Your task to perform on an android device: Go to battery settings Image 0: 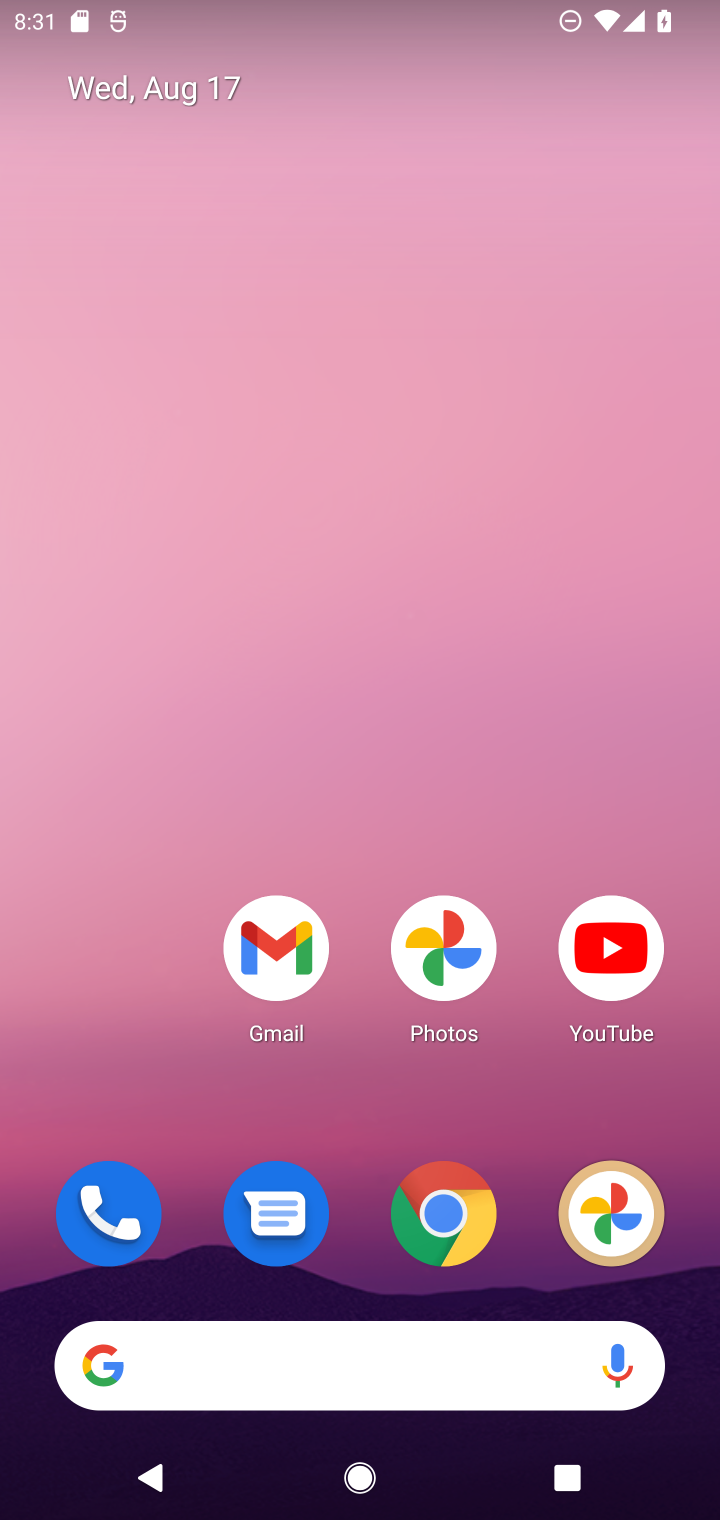
Step 0: click (363, 1259)
Your task to perform on an android device: Go to battery settings Image 1: 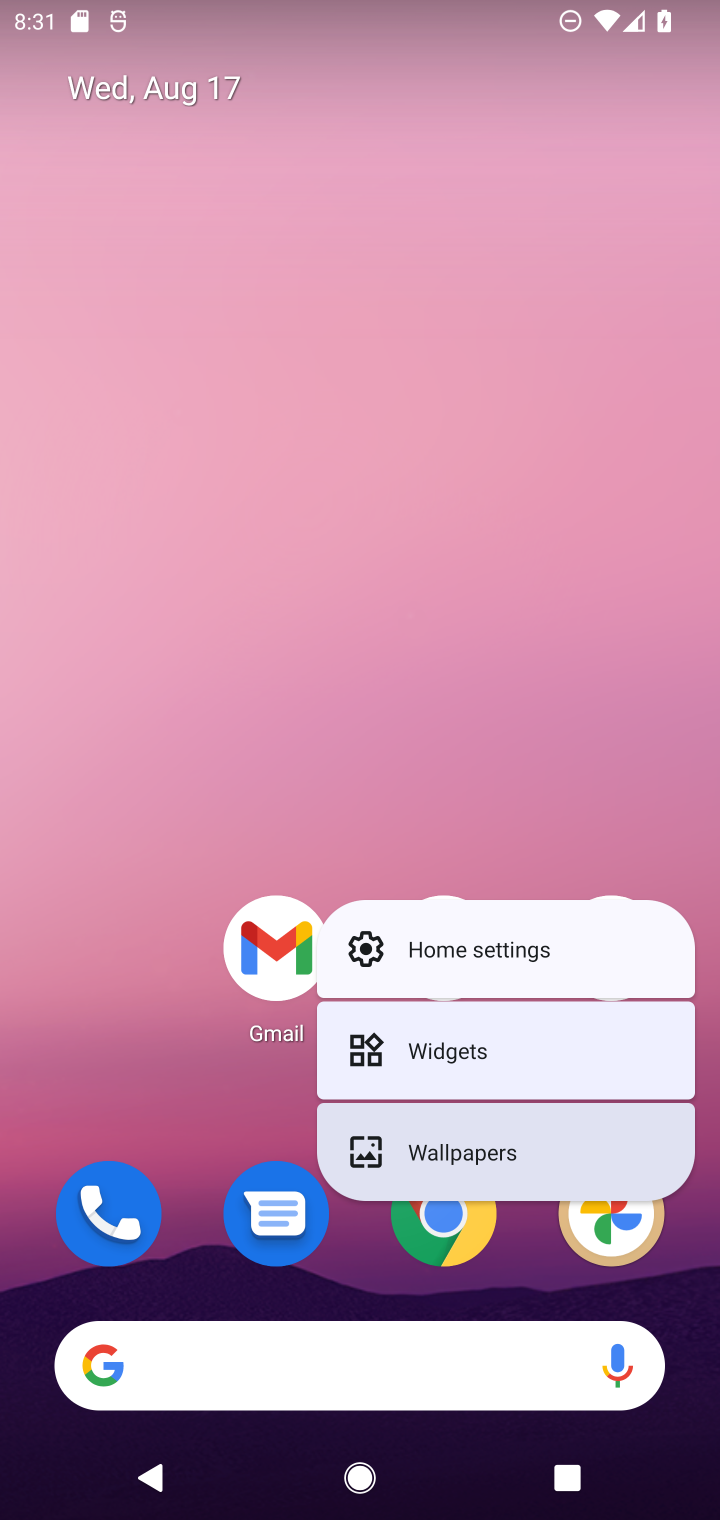
Step 1: click (363, 1259)
Your task to perform on an android device: Go to battery settings Image 2: 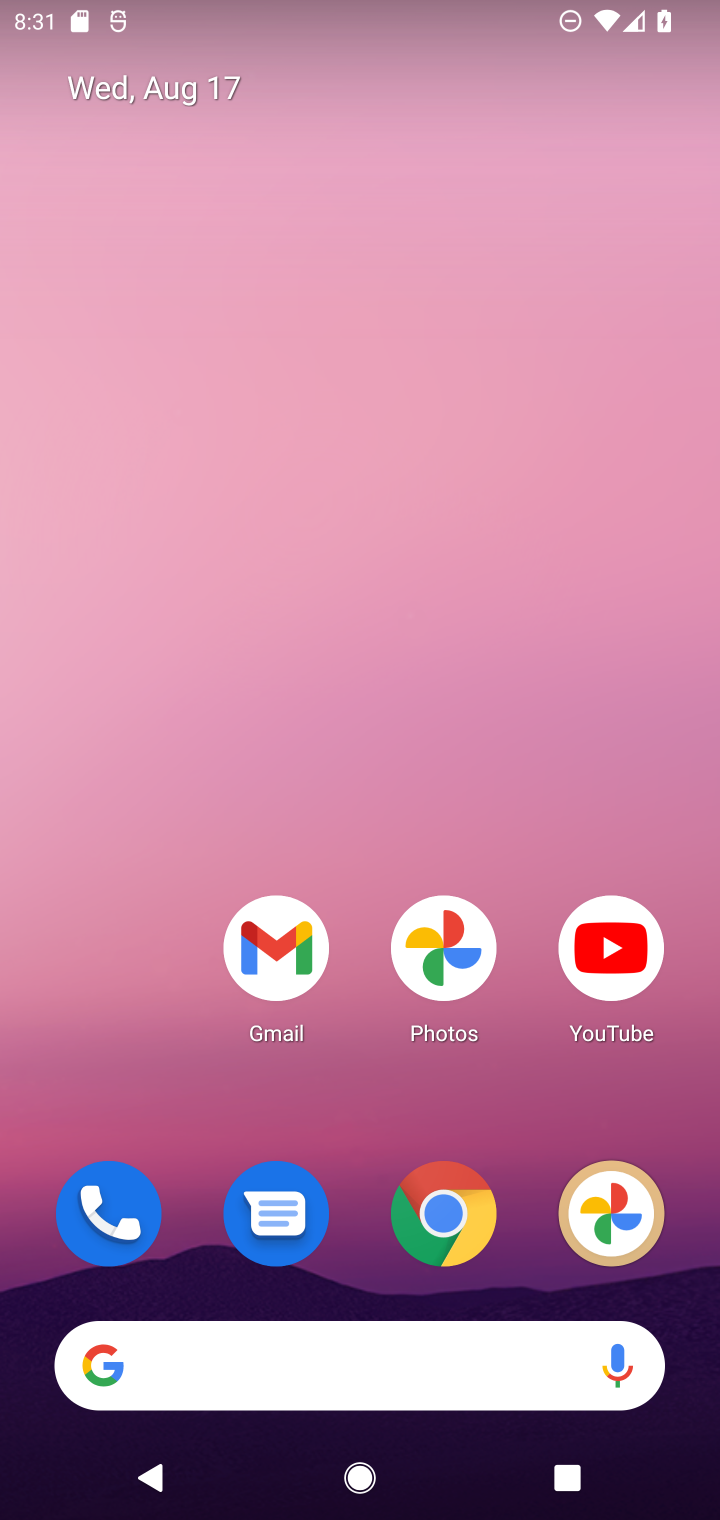
Step 2: drag from (363, 1259) to (350, 773)
Your task to perform on an android device: Go to battery settings Image 3: 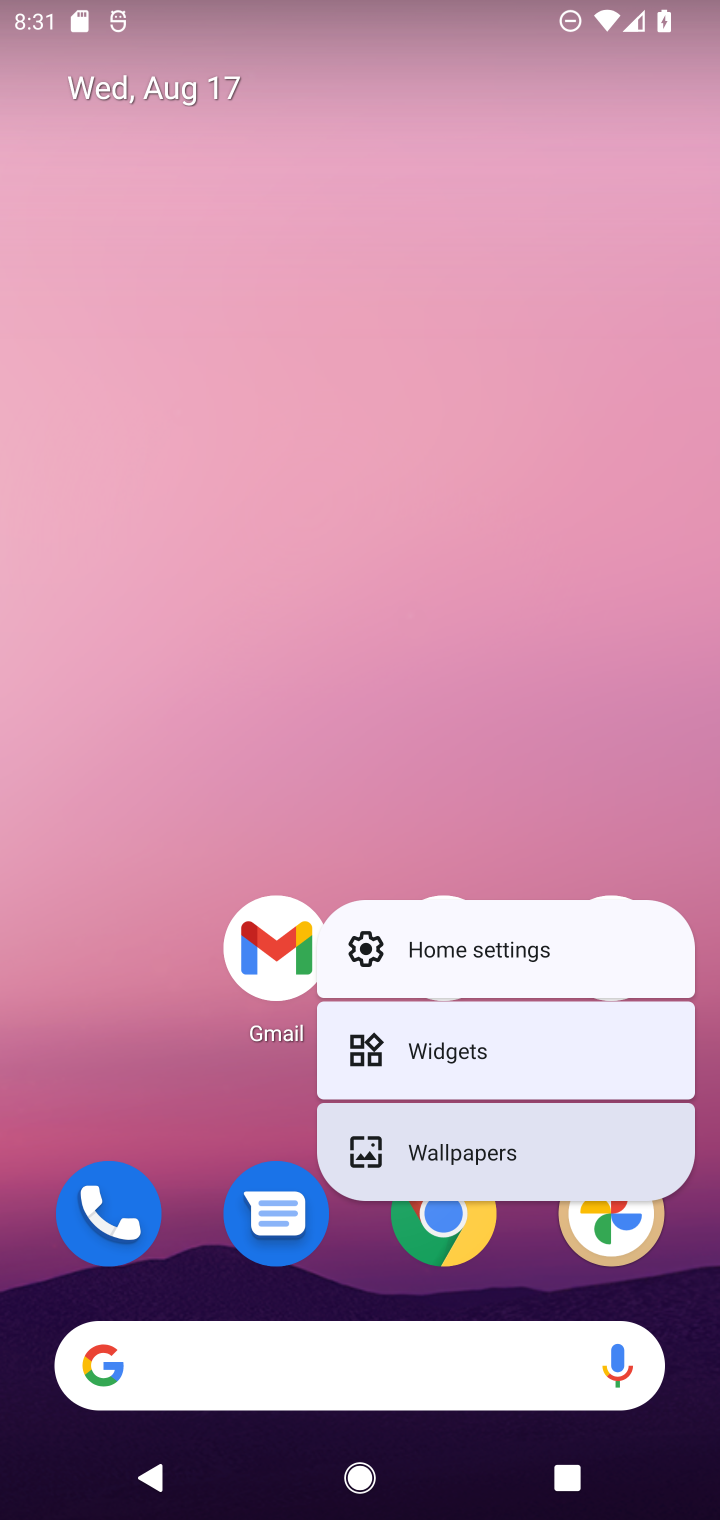
Step 3: drag from (344, 1300) to (251, 318)
Your task to perform on an android device: Go to battery settings Image 4: 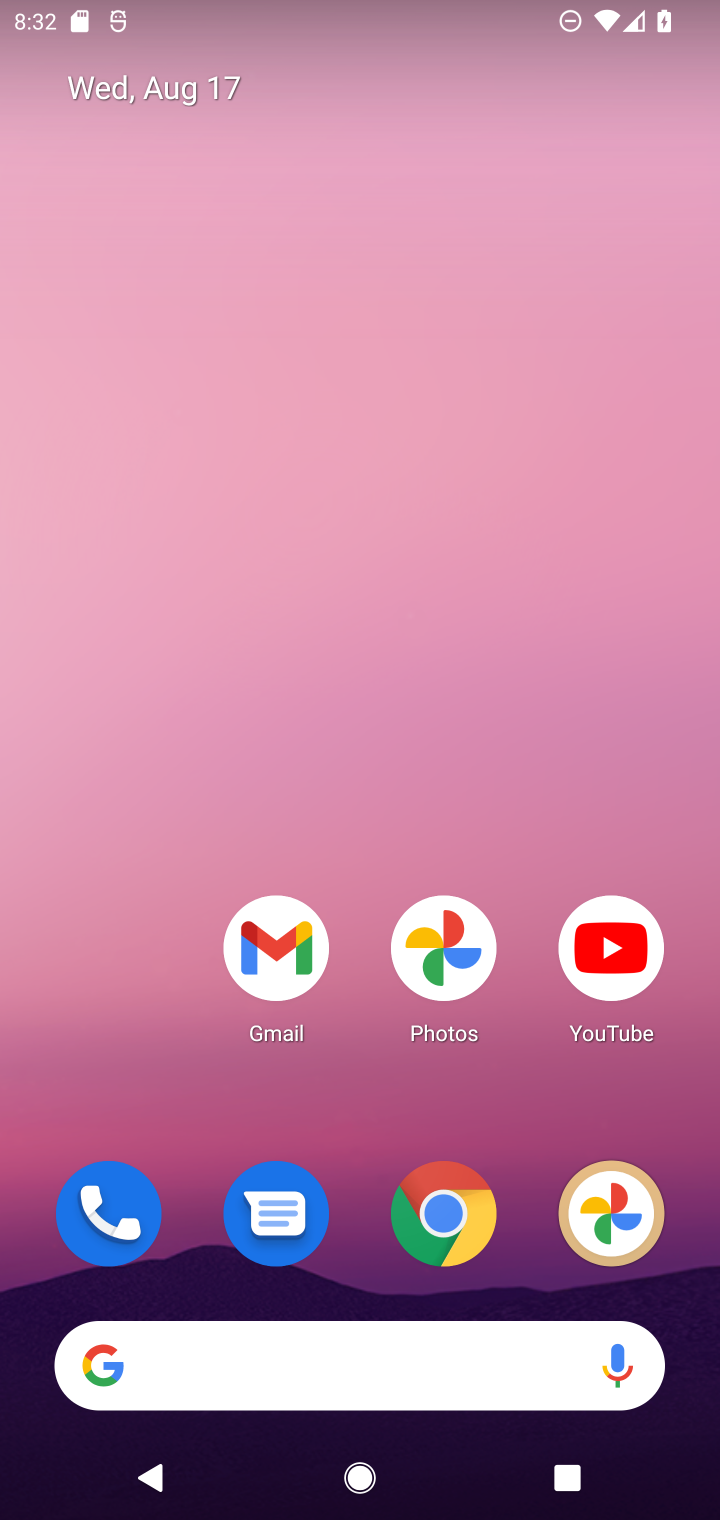
Step 4: drag from (387, 1274) to (202, 188)
Your task to perform on an android device: Go to battery settings Image 5: 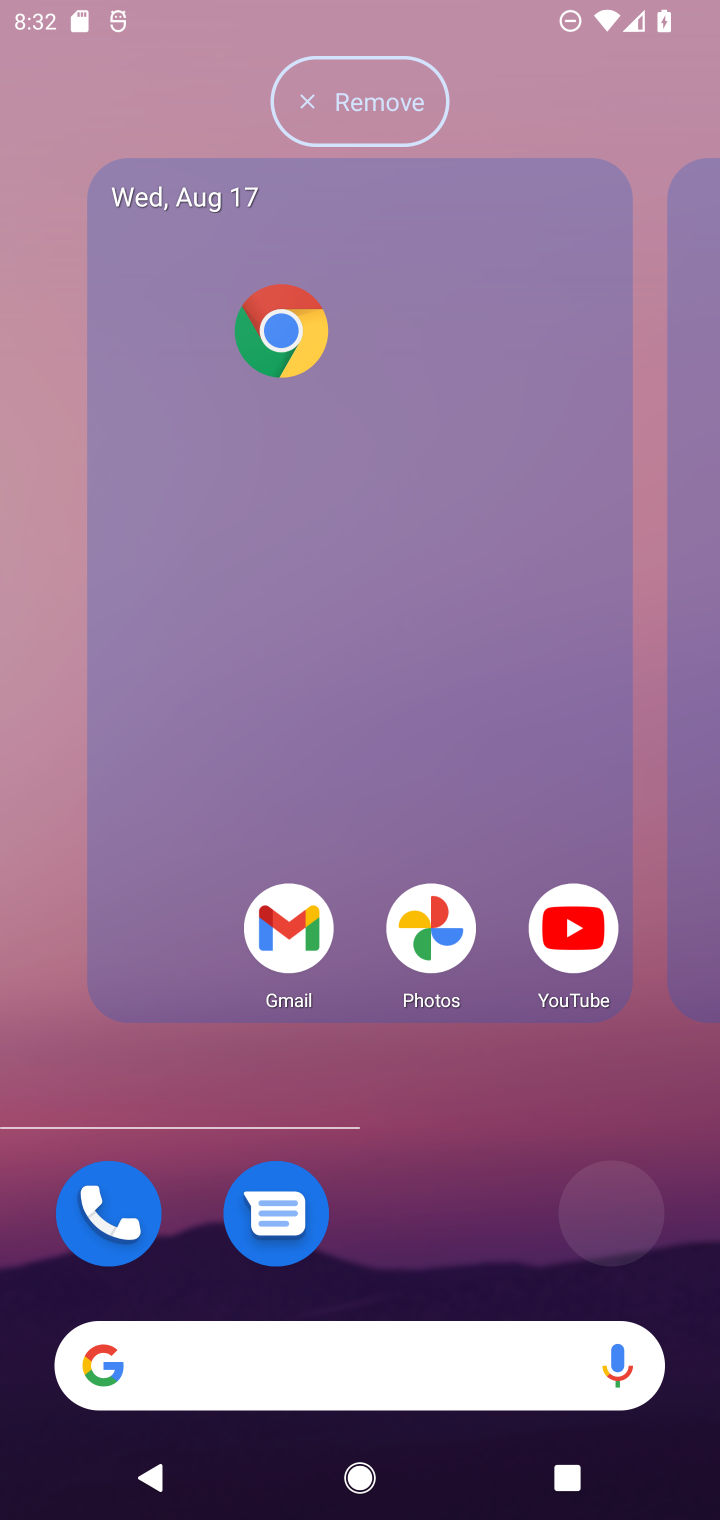
Step 5: click (202, 188)
Your task to perform on an android device: Go to battery settings Image 6: 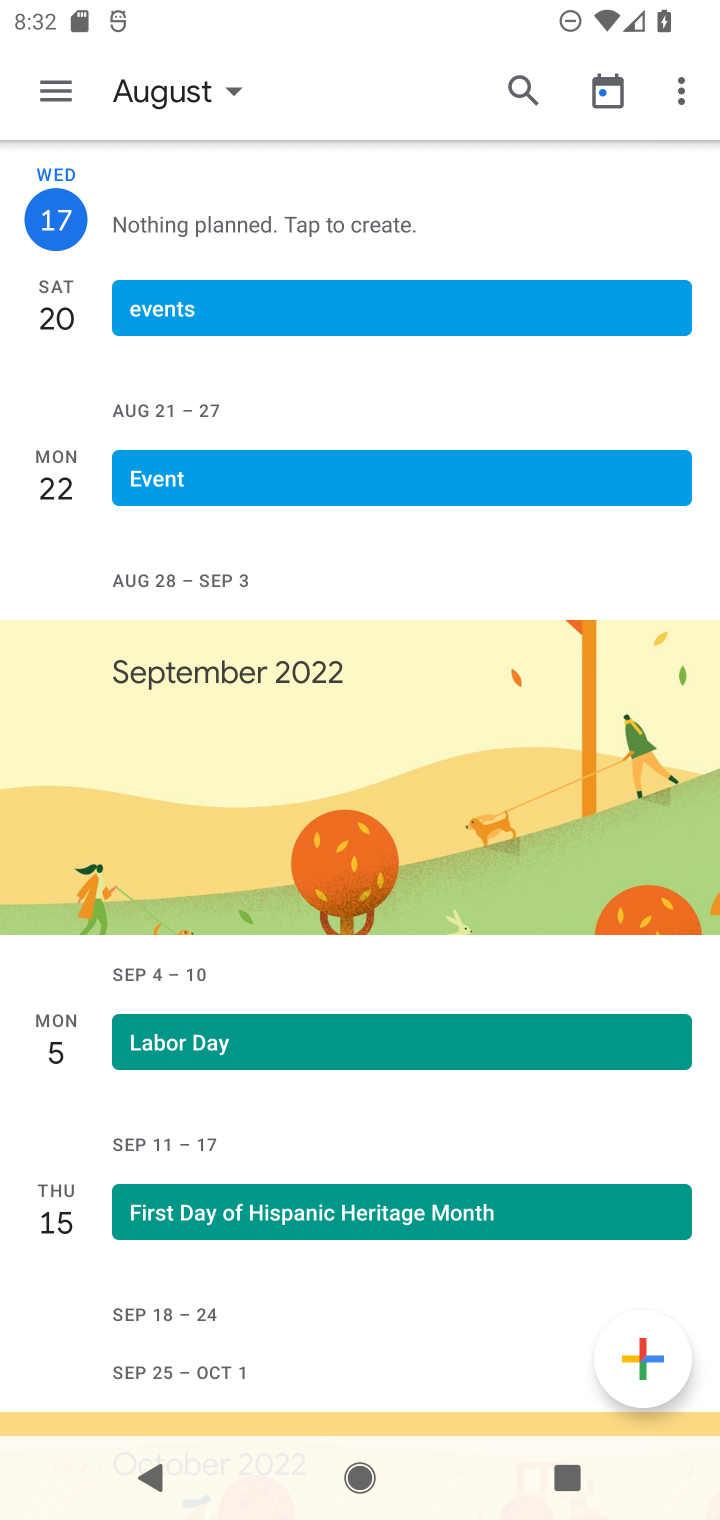
Step 6: click (353, 1315)
Your task to perform on an android device: Go to battery settings Image 7: 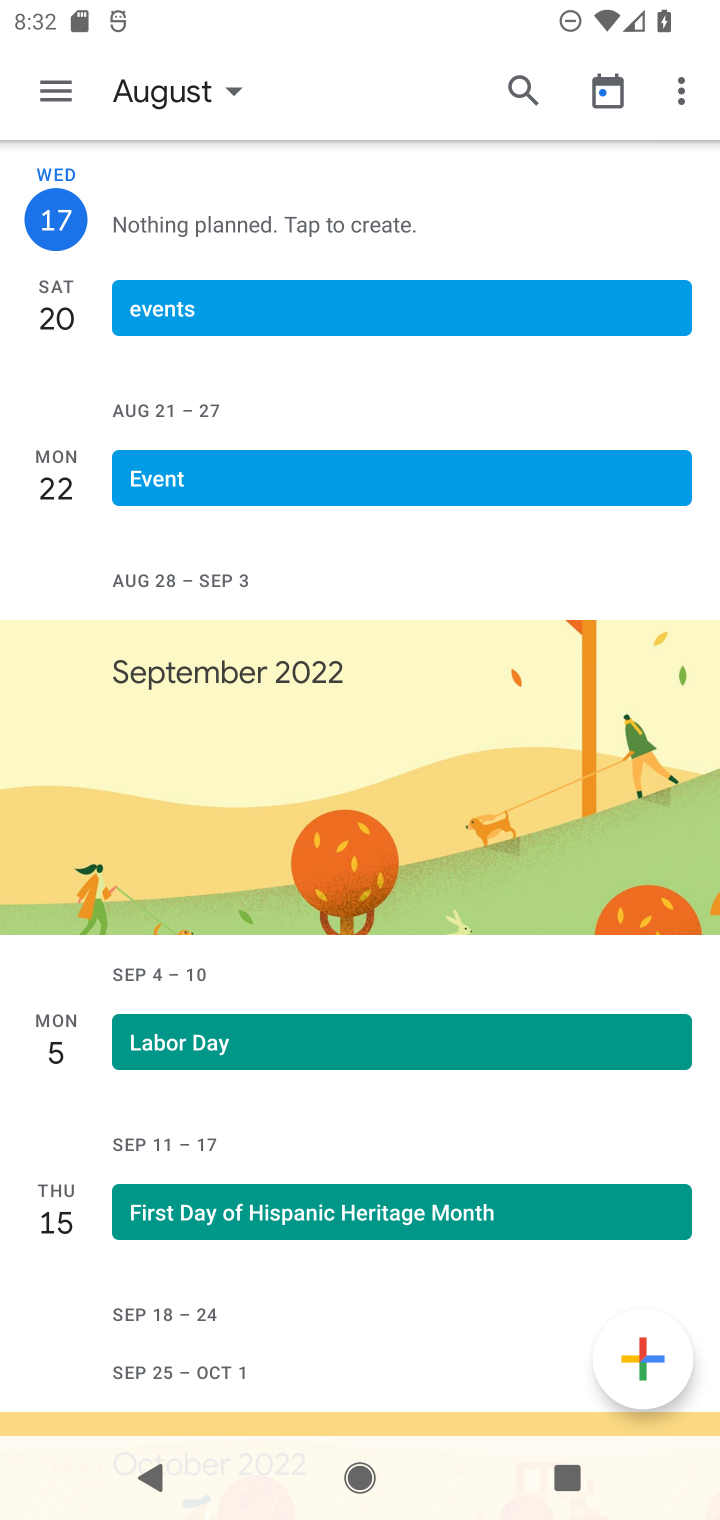
Step 7: press home button
Your task to perform on an android device: Go to battery settings Image 8: 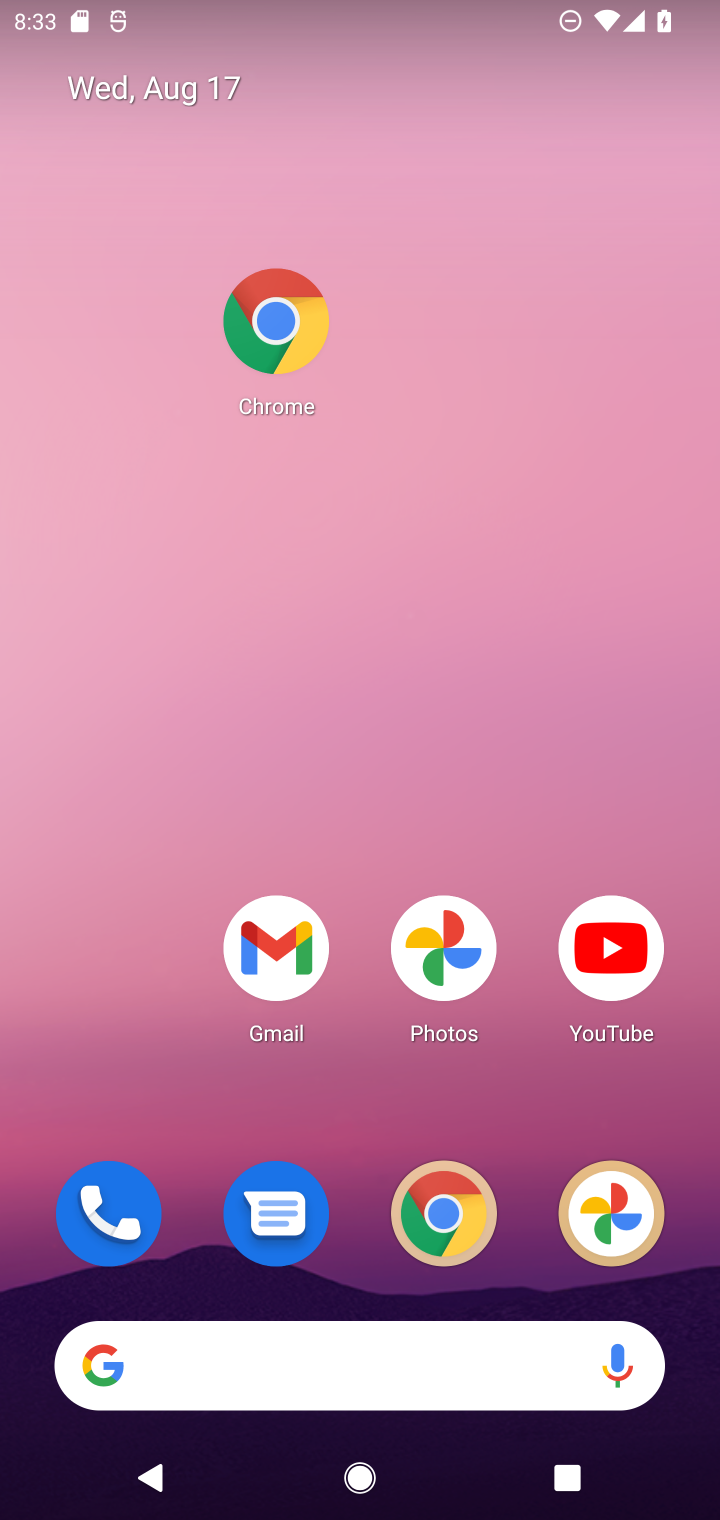
Step 8: drag from (544, 1278) to (453, 161)
Your task to perform on an android device: Go to battery settings Image 9: 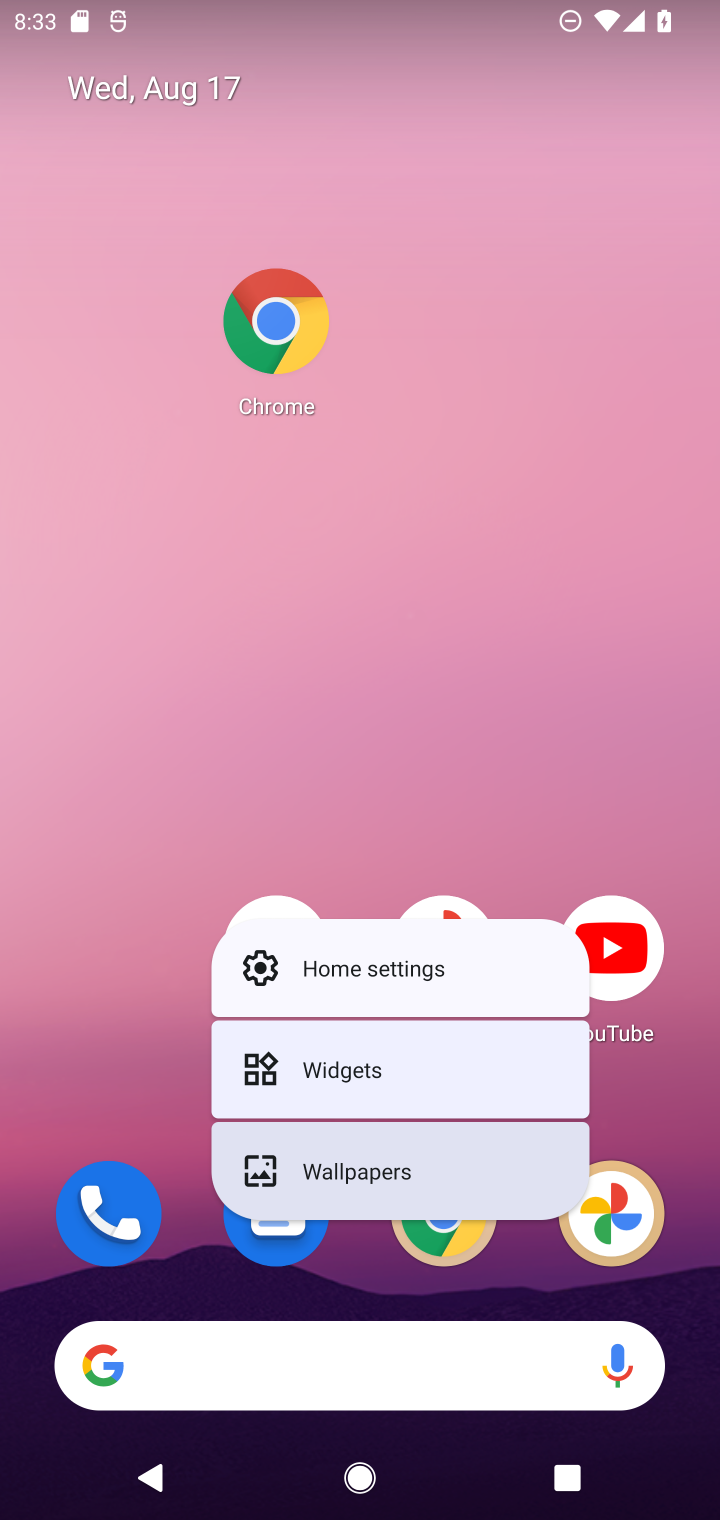
Step 9: click (396, 449)
Your task to perform on an android device: Go to battery settings Image 10: 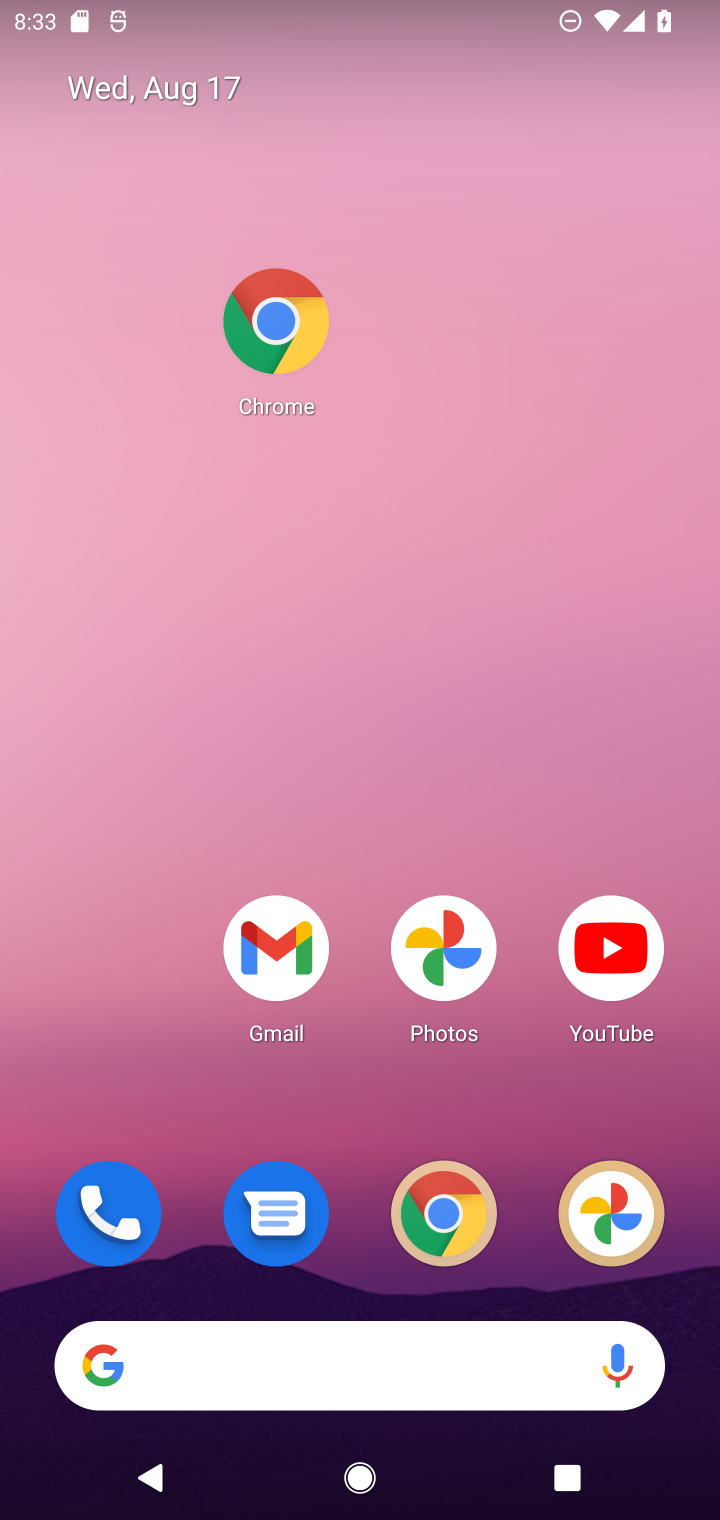
Step 10: drag from (533, 1288) to (326, 59)
Your task to perform on an android device: Go to battery settings Image 11: 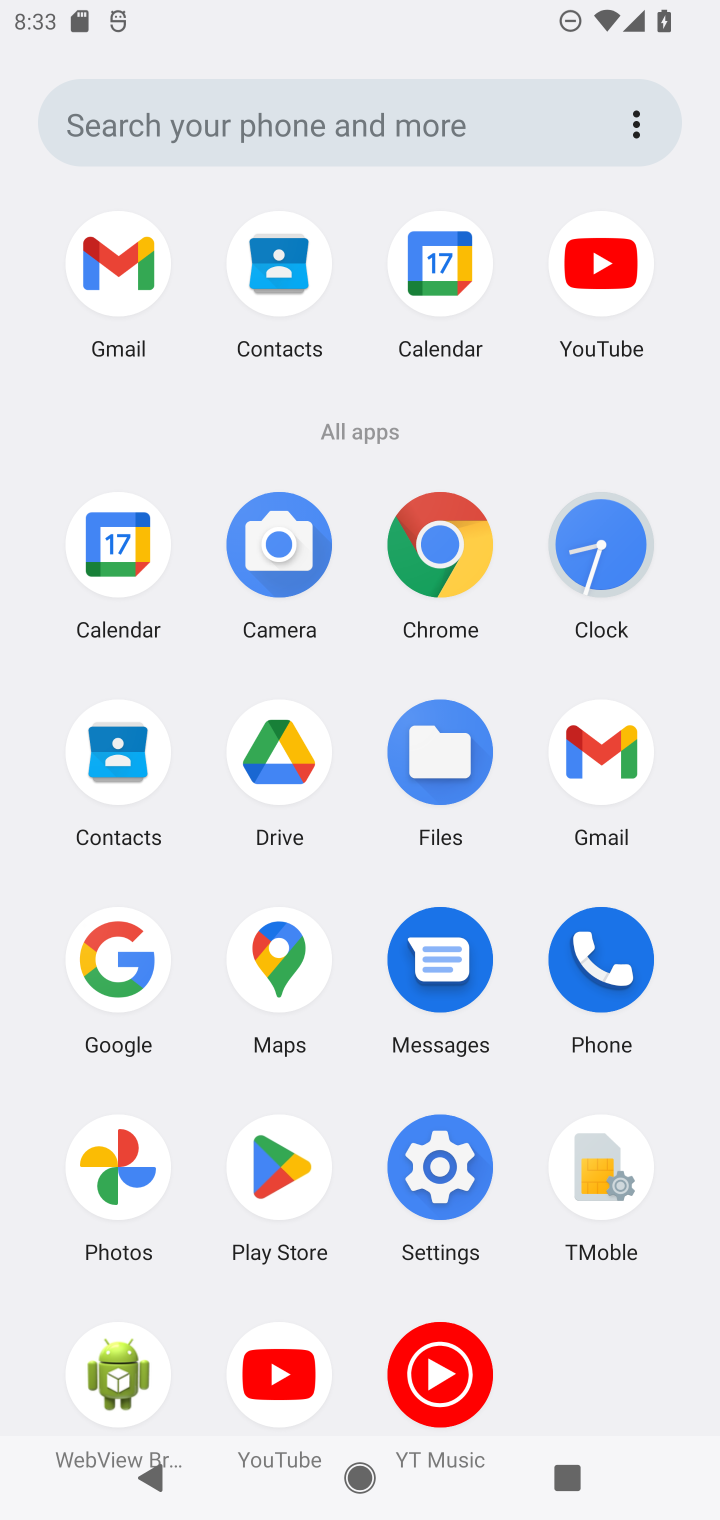
Step 11: click (463, 1205)
Your task to perform on an android device: Go to battery settings Image 12: 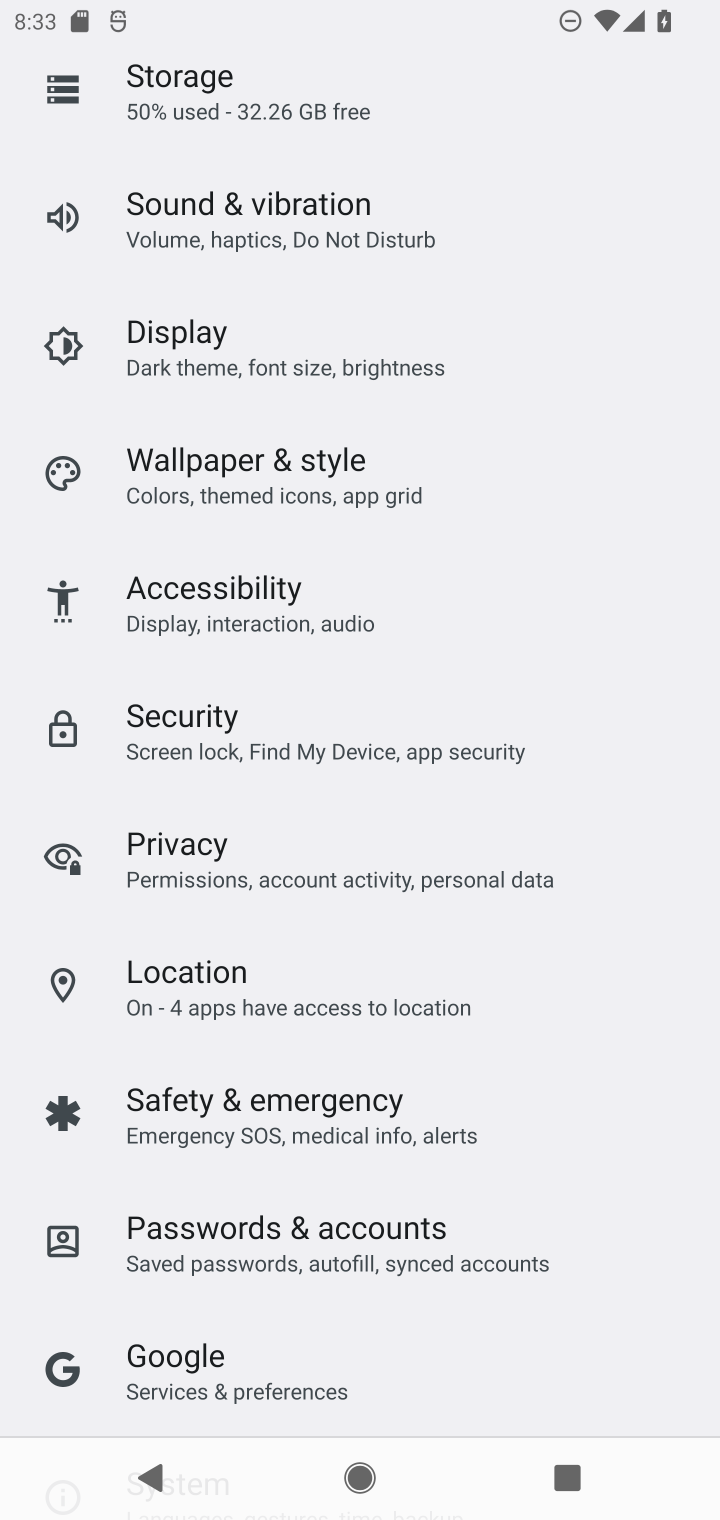
Step 12: task complete